Your task to perform on an android device: Go to calendar. Show me events next week Image 0: 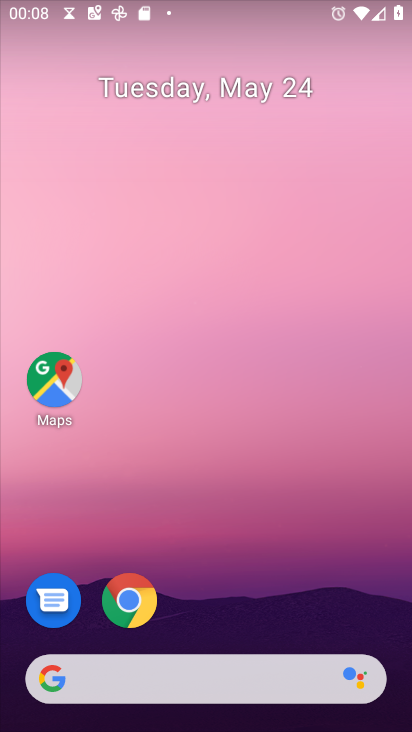
Step 0: drag from (194, 723) to (197, 61)
Your task to perform on an android device: Go to calendar. Show me events next week Image 1: 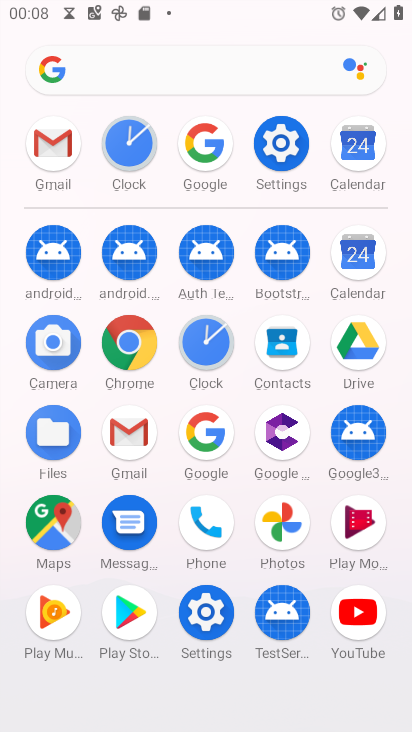
Step 1: click (357, 241)
Your task to perform on an android device: Go to calendar. Show me events next week Image 2: 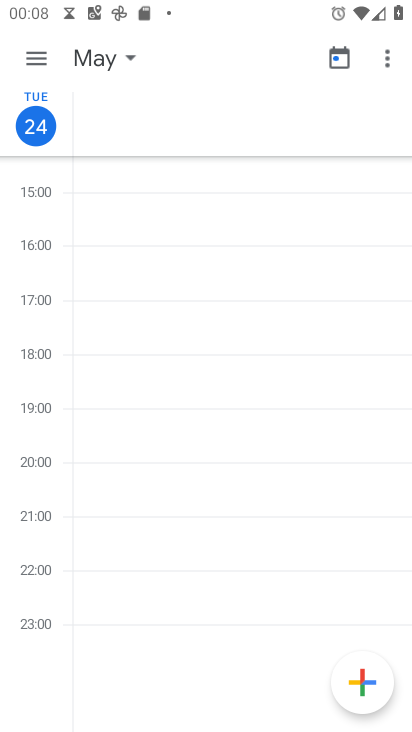
Step 2: click (119, 58)
Your task to perform on an android device: Go to calendar. Show me events next week Image 3: 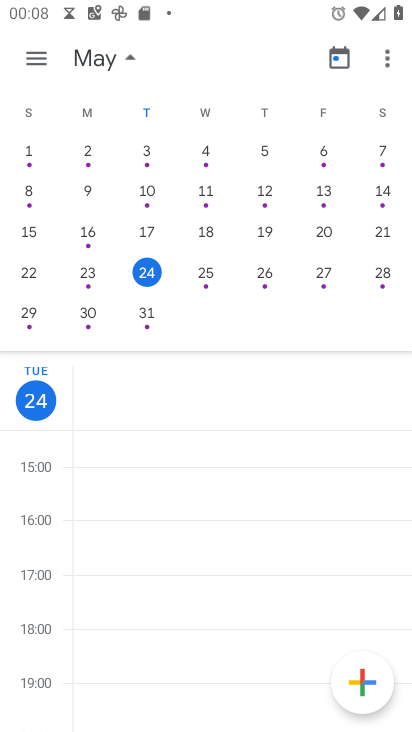
Step 3: click (88, 313)
Your task to perform on an android device: Go to calendar. Show me events next week Image 4: 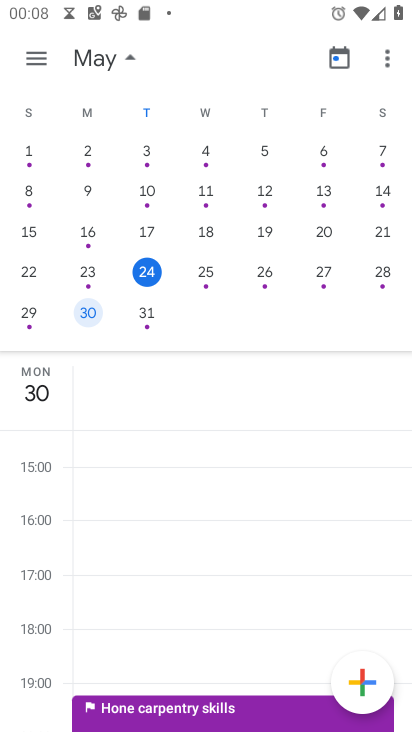
Step 4: click (37, 53)
Your task to perform on an android device: Go to calendar. Show me events next week Image 5: 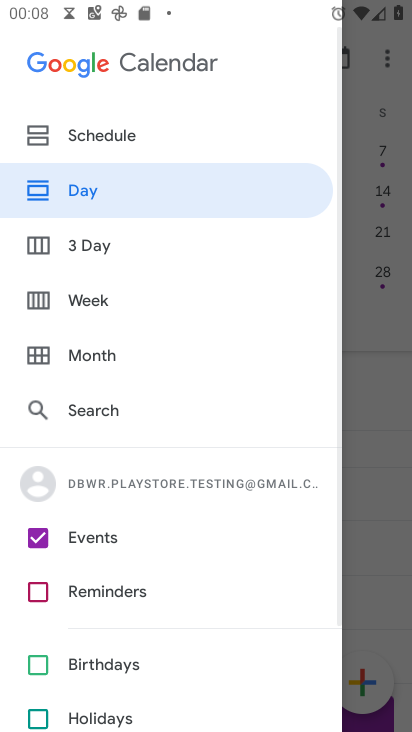
Step 5: click (85, 292)
Your task to perform on an android device: Go to calendar. Show me events next week Image 6: 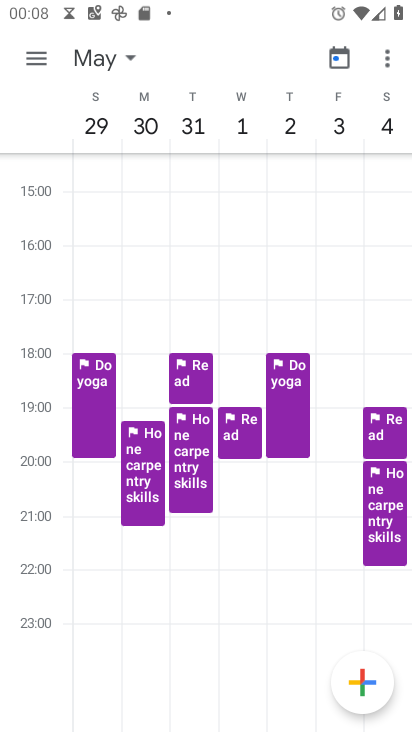
Step 6: task complete